Your task to perform on an android device: change the clock style Image 0: 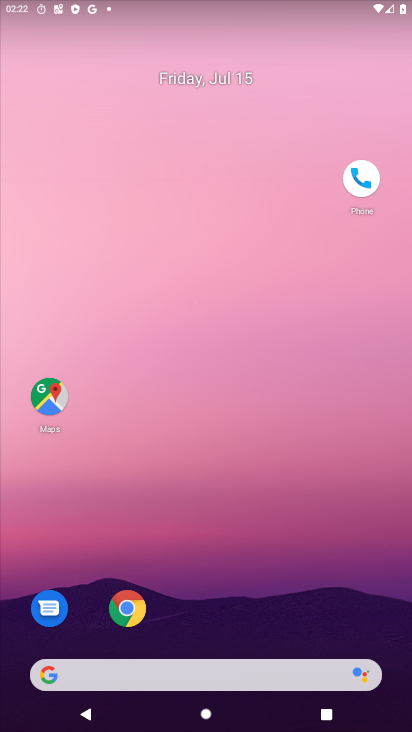
Step 0: drag from (196, 628) to (211, 138)
Your task to perform on an android device: change the clock style Image 1: 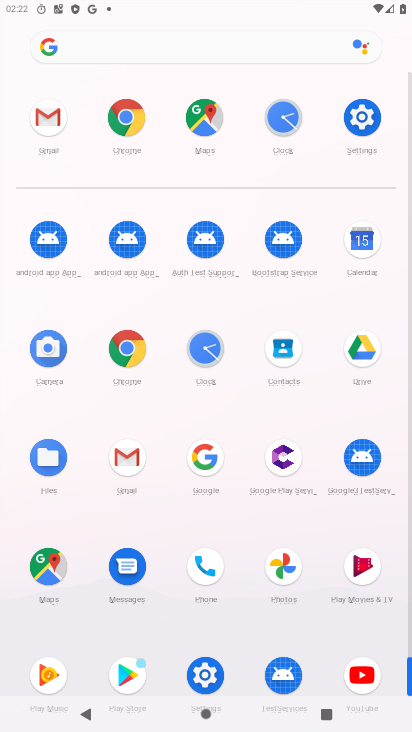
Step 1: click (197, 348)
Your task to perform on an android device: change the clock style Image 2: 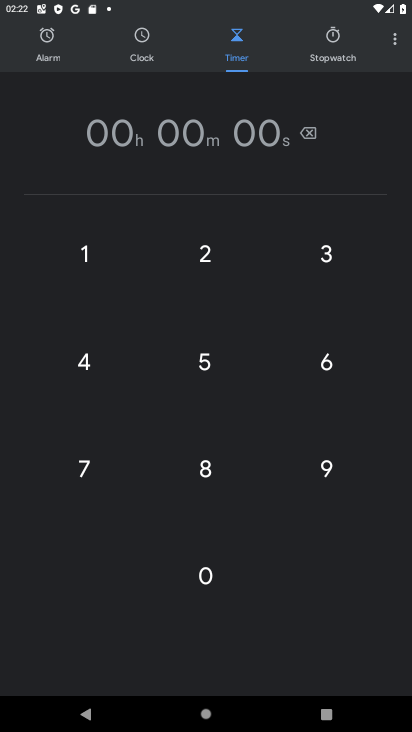
Step 2: drag from (394, 35) to (368, 64)
Your task to perform on an android device: change the clock style Image 3: 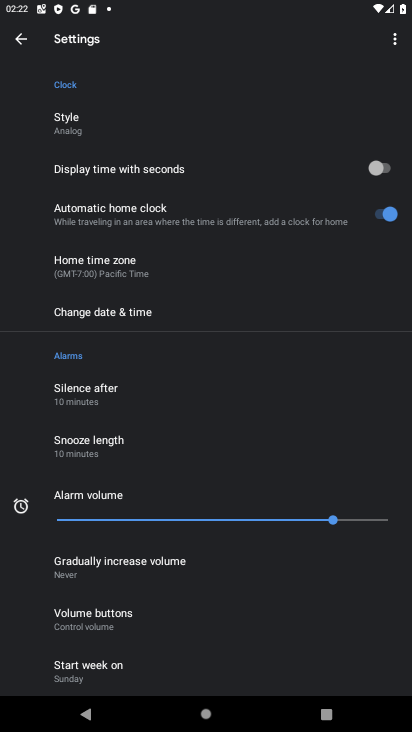
Step 3: click (133, 132)
Your task to perform on an android device: change the clock style Image 4: 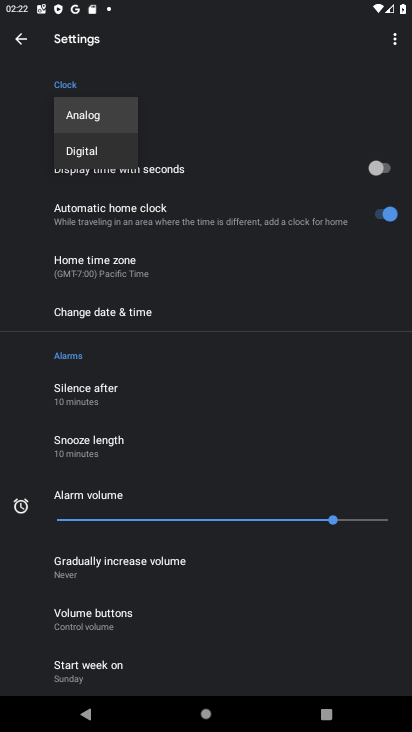
Step 4: click (109, 146)
Your task to perform on an android device: change the clock style Image 5: 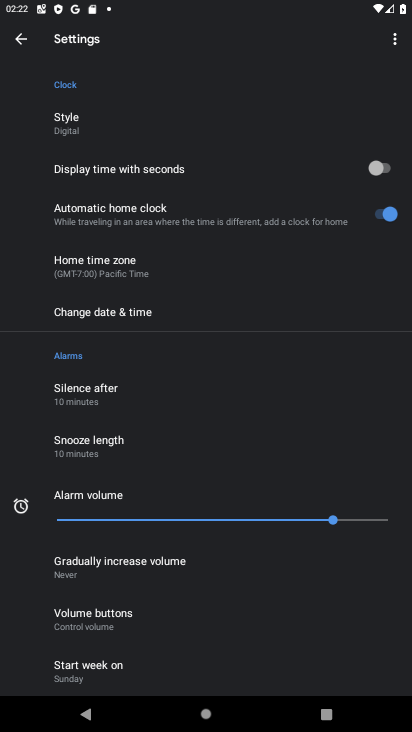
Step 5: task complete